Your task to perform on an android device: Go to Google Image 0: 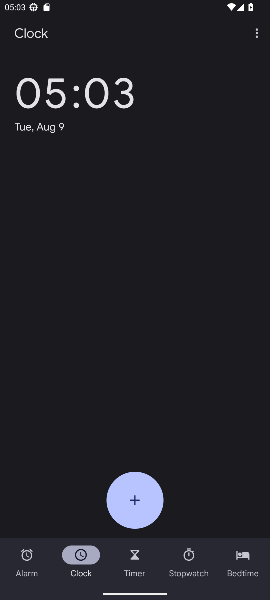
Step 0: press home button
Your task to perform on an android device: Go to Google Image 1: 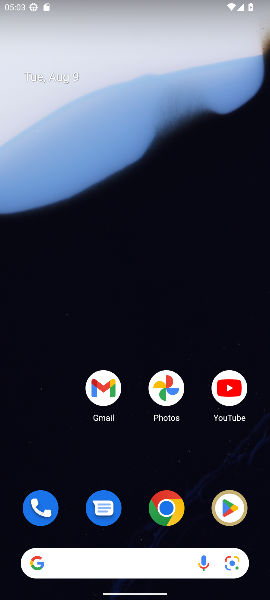
Step 1: drag from (130, 447) to (142, 32)
Your task to perform on an android device: Go to Google Image 2: 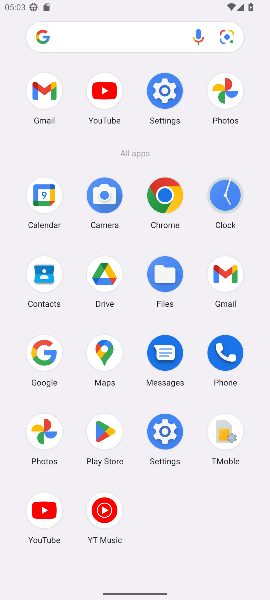
Step 2: click (39, 355)
Your task to perform on an android device: Go to Google Image 3: 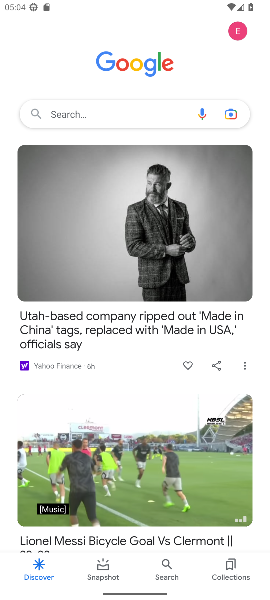
Step 3: task complete